Your task to perform on an android device: turn off priority inbox in the gmail app Image 0: 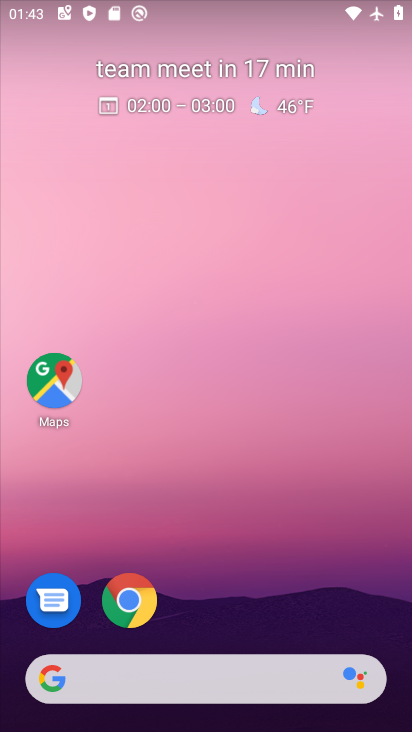
Step 0: drag from (218, 645) to (212, 50)
Your task to perform on an android device: turn off priority inbox in the gmail app Image 1: 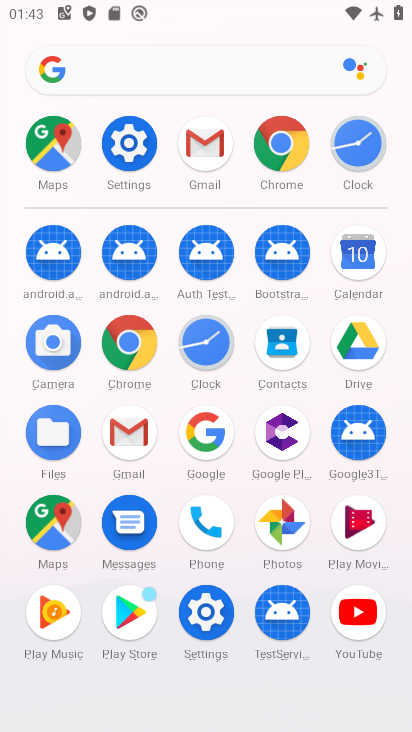
Step 1: click (118, 441)
Your task to perform on an android device: turn off priority inbox in the gmail app Image 2: 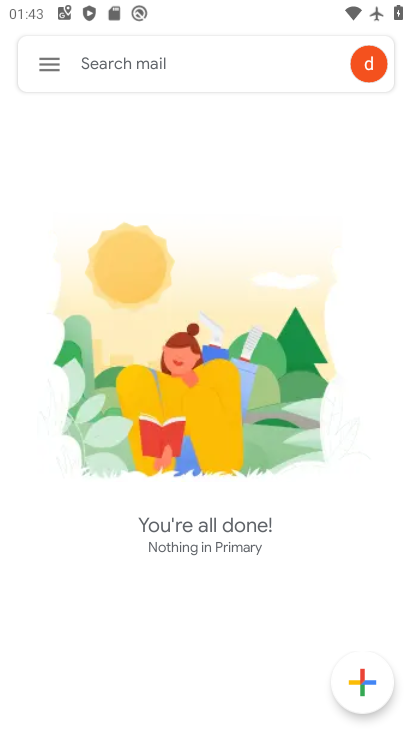
Step 2: click (41, 59)
Your task to perform on an android device: turn off priority inbox in the gmail app Image 3: 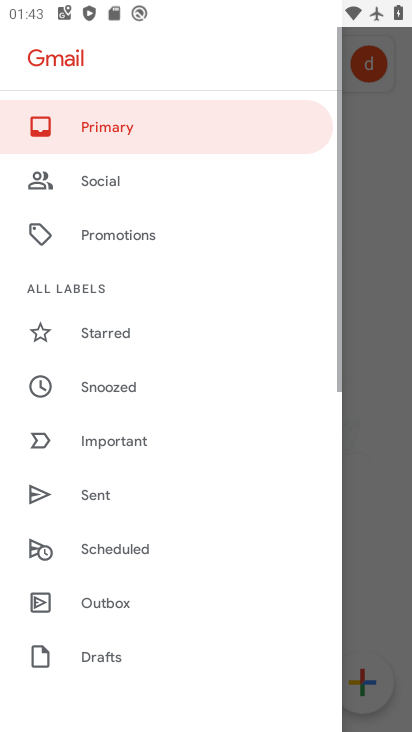
Step 3: drag from (122, 535) to (125, 174)
Your task to perform on an android device: turn off priority inbox in the gmail app Image 4: 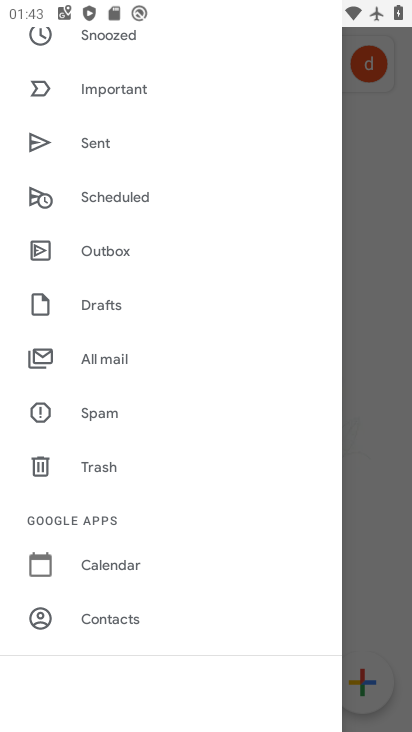
Step 4: drag from (125, 640) to (125, 245)
Your task to perform on an android device: turn off priority inbox in the gmail app Image 5: 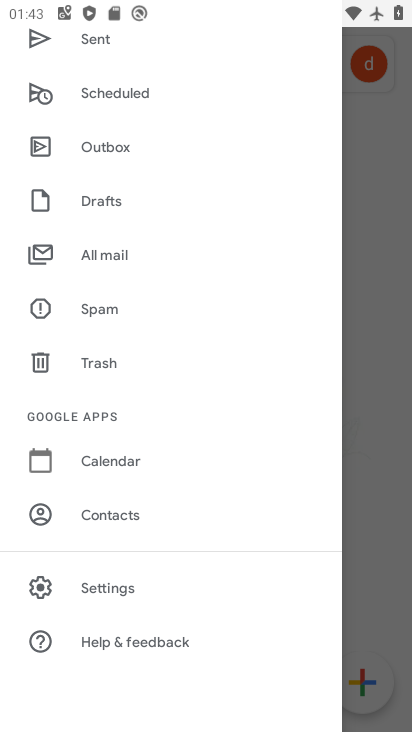
Step 5: click (113, 586)
Your task to perform on an android device: turn off priority inbox in the gmail app Image 6: 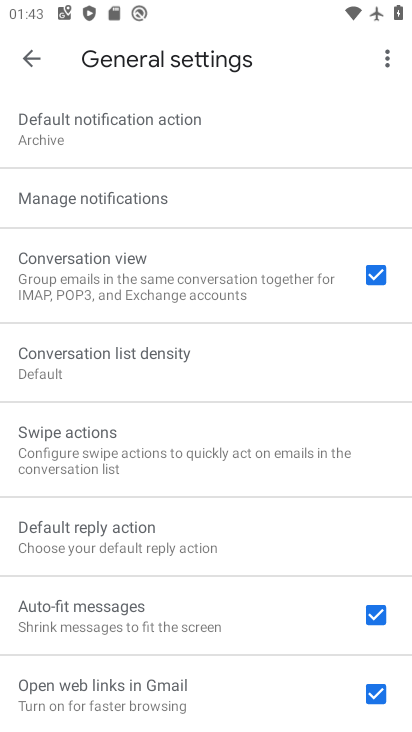
Step 6: click (38, 50)
Your task to perform on an android device: turn off priority inbox in the gmail app Image 7: 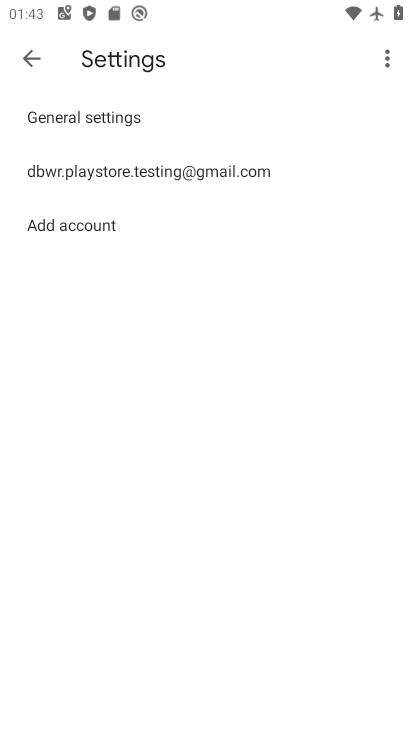
Step 7: click (69, 169)
Your task to perform on an android device: turn off priority inbox in the gmail app Image 8: 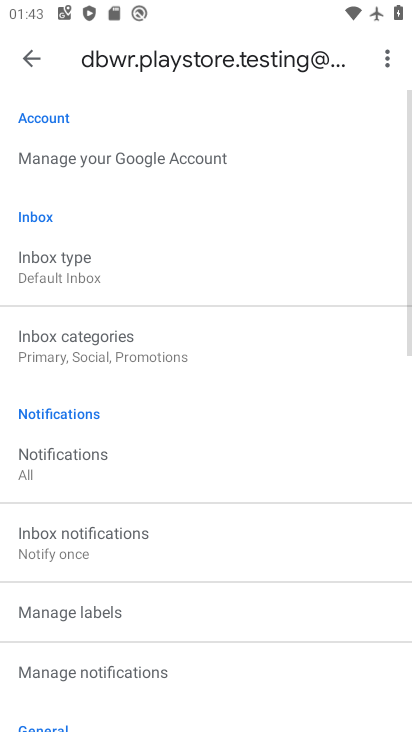
Step 8: click (91, 265)
Your task to perform on an android device: turn off priority inbox in the gmail app Image 9: 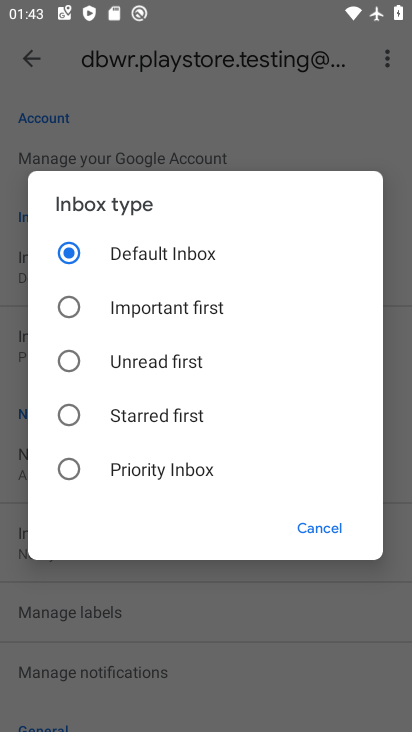
Step 9: task complete